Your task to perform on an android device: toggle priority inbox in the gmail app Image 0: 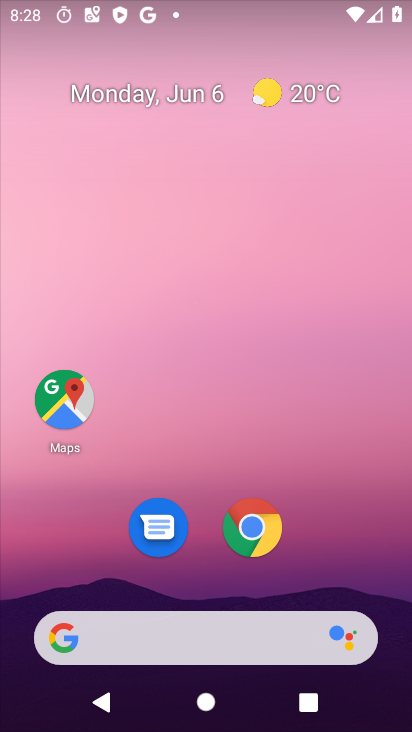
Step 0: drag from (239, 727) to (259, 203)
Your task to perform on an android device: toggle priority inbox in the gmail app Image 1: 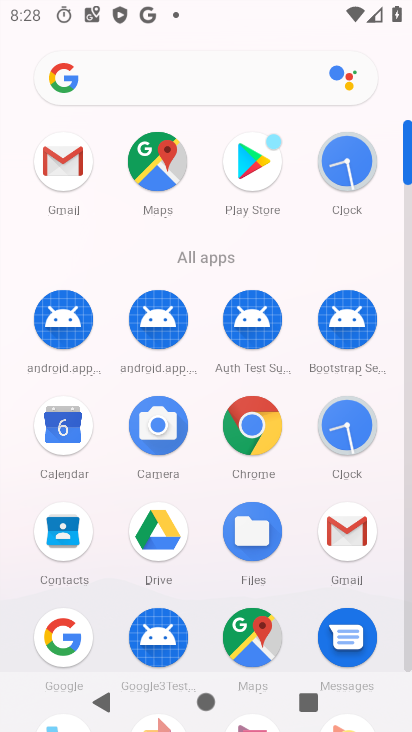
Step 1: click (328, 536)
Your task to perform on an android device: toggle priority inbox in the gmail app Image 2: 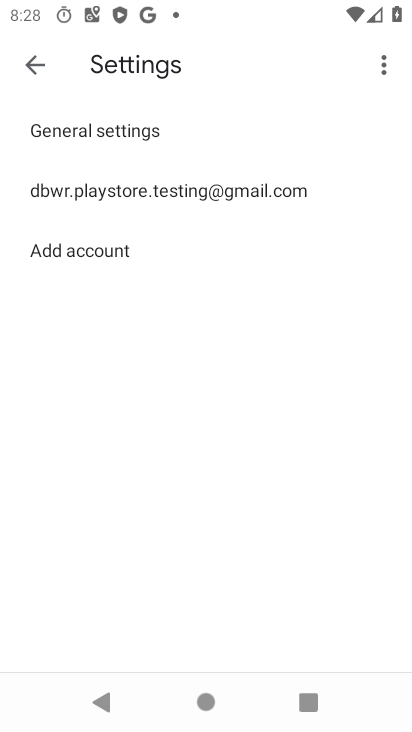
Step 2: click (131, 188)
Your task to perform on an android device: toggle priority inbox in the gmail app Image 3: 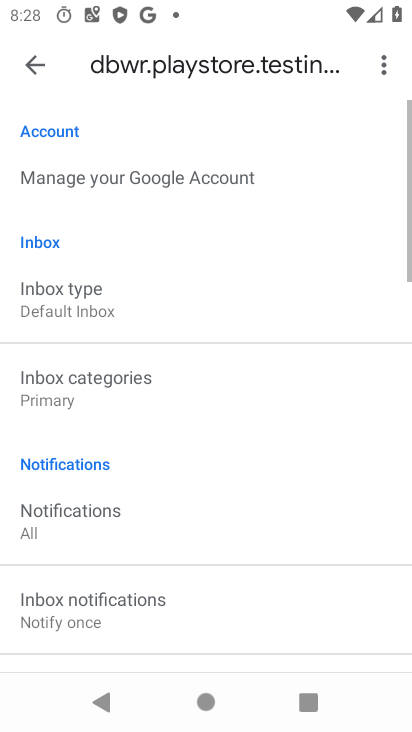
Step 3: click (66, 313)
Your task to perform on an android device: toggle priority inbox in the gmail app Image 4: 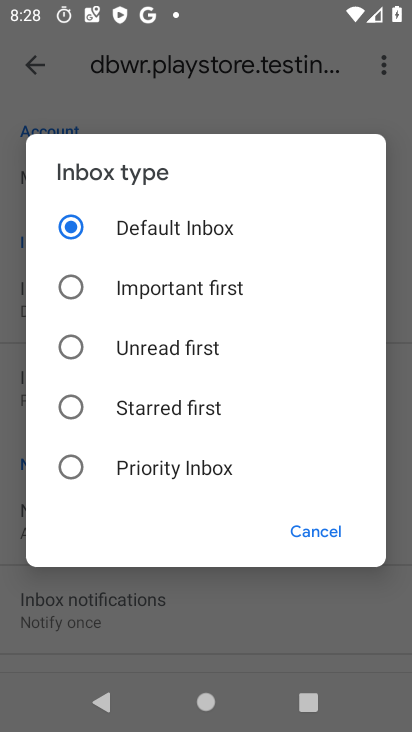
Step 4: click (76, 464)
Your task to perform on an android device: toggle priority inbox in the gmail app Image 5: 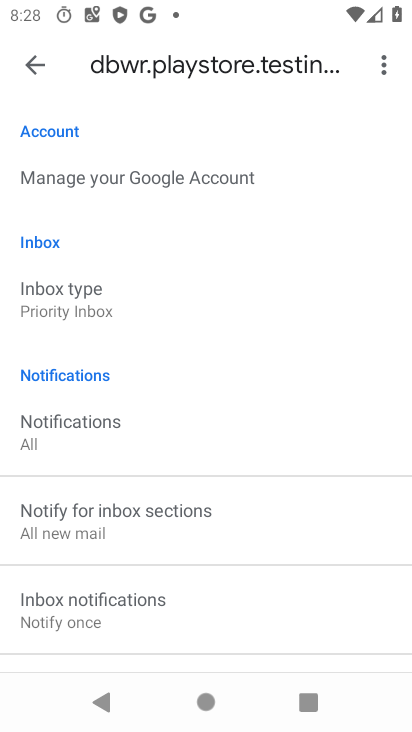
Step 5: task complete